Your task to perform on an android device: turn on the 24-hour format for clock Image 0: 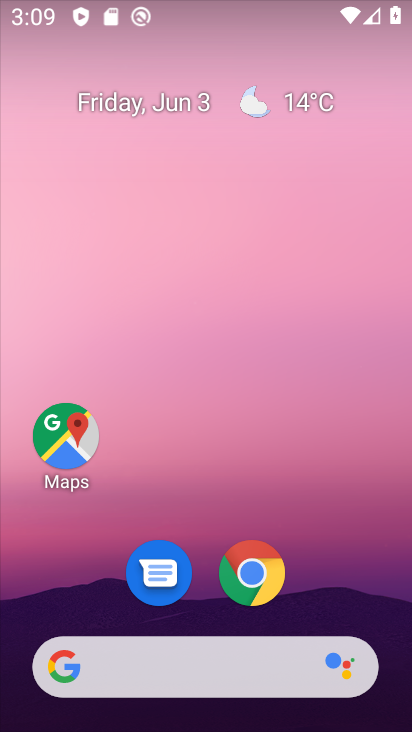
Step 0: drag from (253, 647) to (237, 3)
Your task to perform on an android device: turn on the 24-hour format for clock Image 1: 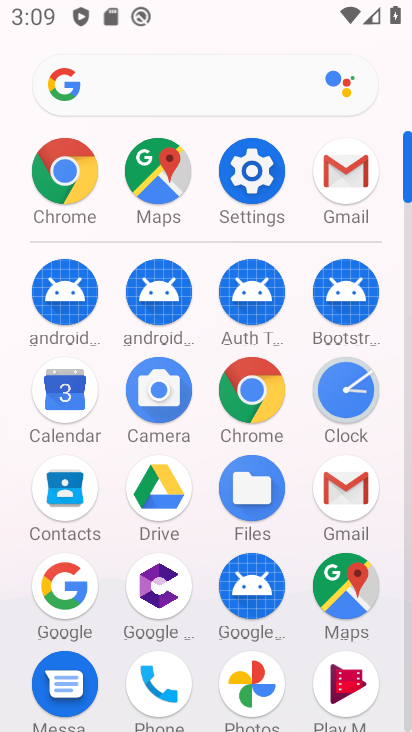
Step 1: click (343, 382)
Your task to perform on an android device: turn on the 24-hour format for clock Image 2: 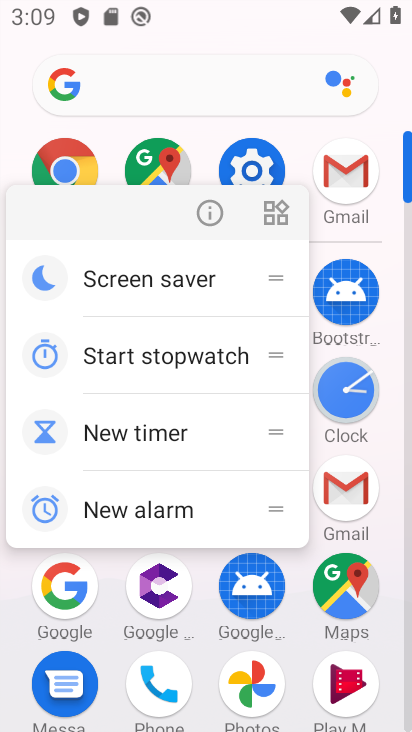
Step 2: click (344, 382)
Your task to perform on an android device: turn on the 24-hour format for clock Image 3: 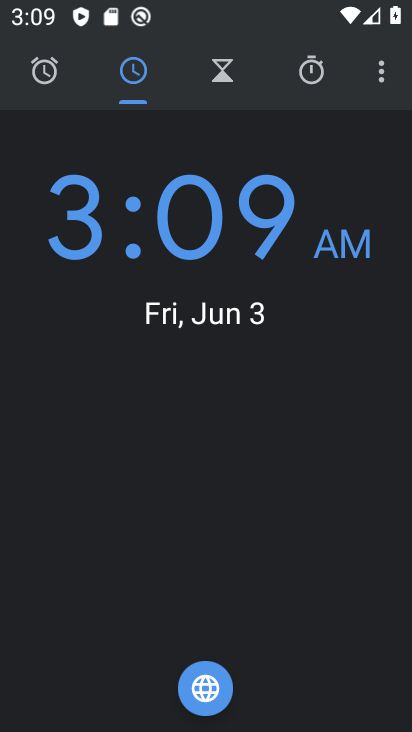
Step 3: drag from (380, 71) to (245, 145)
Your task to perform on an android device: turn on the 24-hour format for clock Image 4: 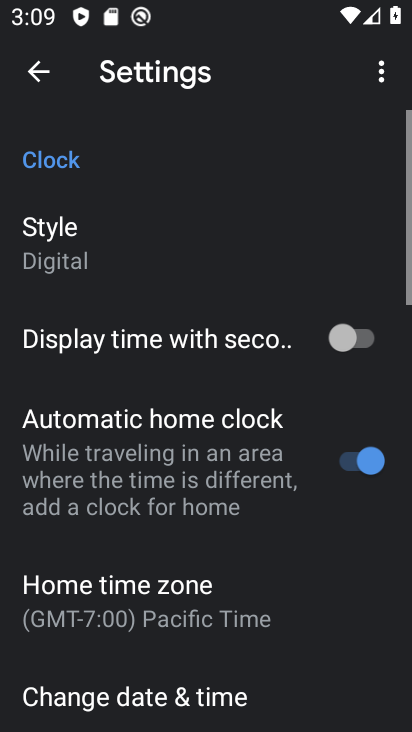
Step 4: drag from (304, 631) to (323, 49)
Your task to perform on an android device: turn on the 24-hour format for clock Image 5: 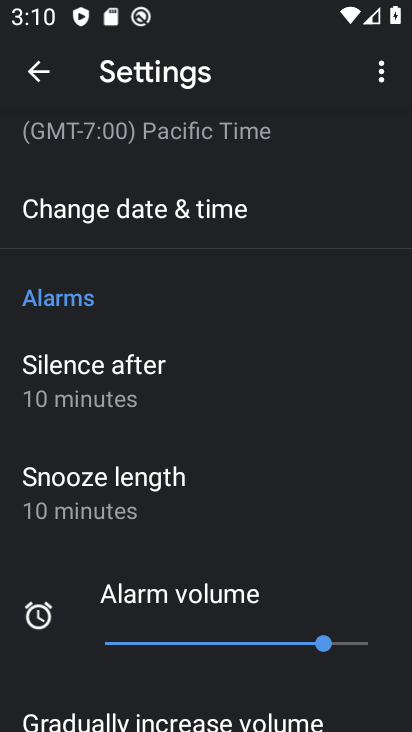
Step 5: drag from (190, 604) to (218, 42)
Your task to perform on an android device: turn on the 24-hour format for clock Image 6: 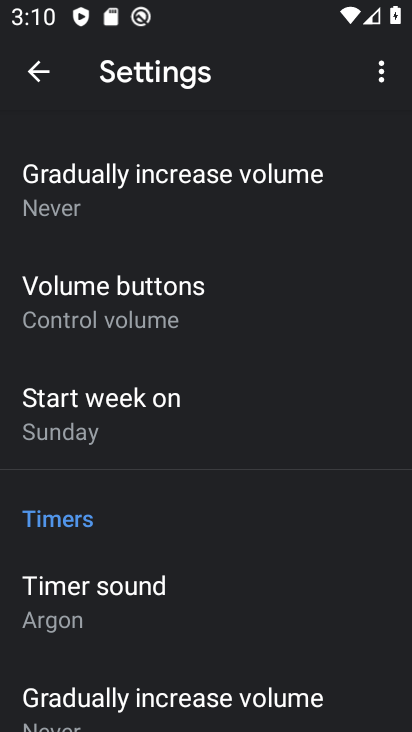
Step 6: drag from (187, 695) to (194, 356)
Your task to perform on an android device: turn on the 24-hour format for clock Image 7: 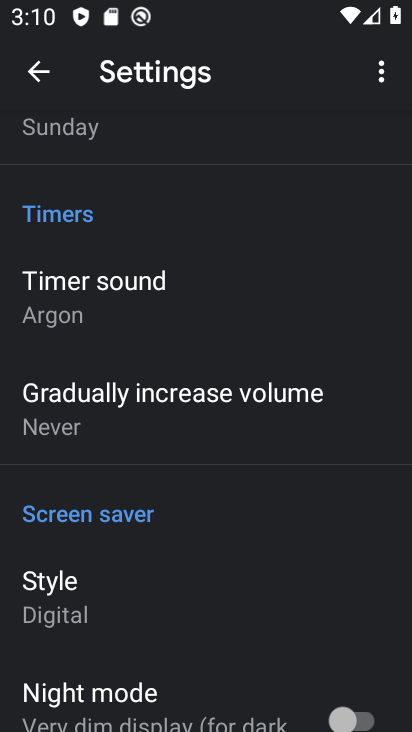
Step 7: click (203, 302)
Your task to perform on an android device: turn on the 24-hour format for clock Image 8: 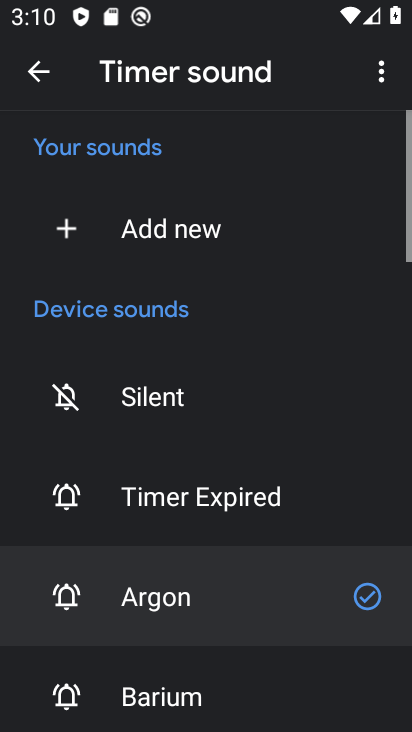
Step 8: press back button
Your task to perform on an android device: turn on the 24-hour format for clock Image 9: 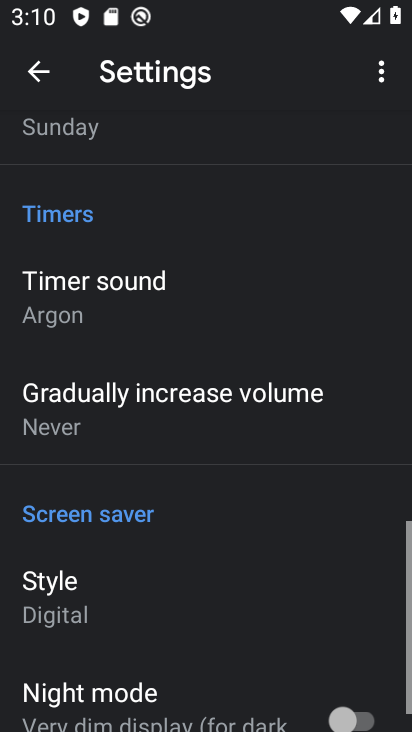
Step 9: drag from (236, 646) to (230, 116)
Your task to perform on an android device: turn on the 24-hour format for clock Image 10: 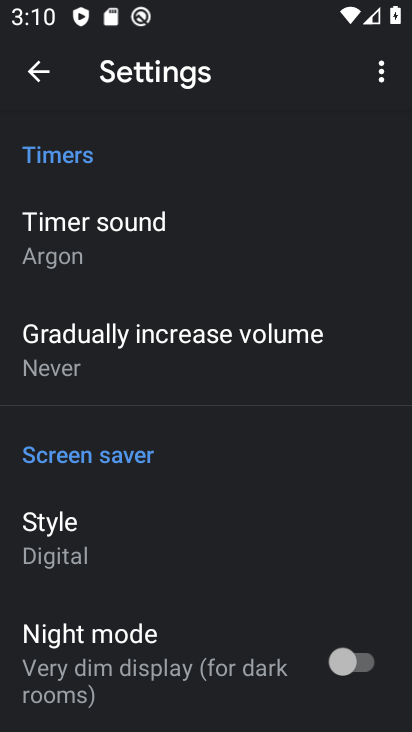
Step 10: drag from (191, 178) to (165, 680)
Your task to perform on an android device: turn on the 24-hour format for clock Image 11: 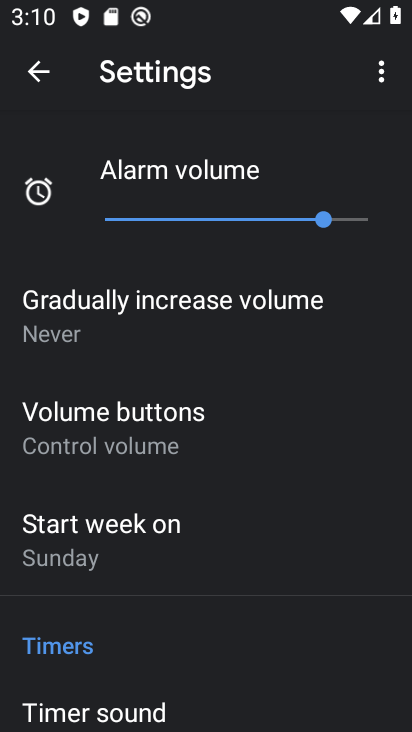
Step 11: drag from (215, 482) to (285, 712)
Your task to perform on an android device: turn on the 24-hour format for clock Image 12: 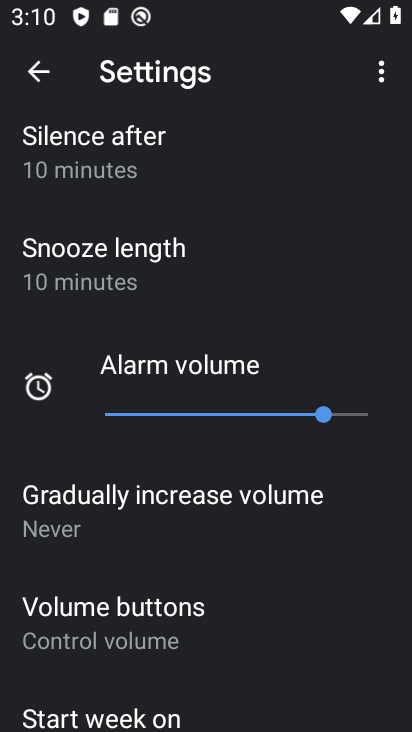
Step 12: drag from (235, 224) to (267, 691)
Your task to perform on an android device: turn on the 24-hour format for clock Image 13: 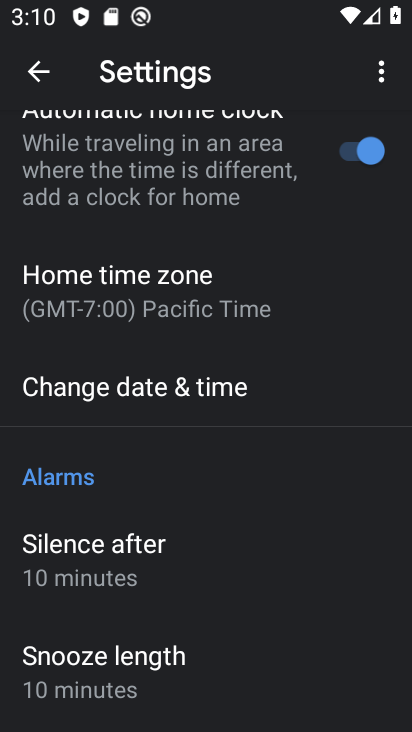
Step 13: click (223, 419)
Your task to perform on an android device: turn on the 24-hour format for clock Image 14: 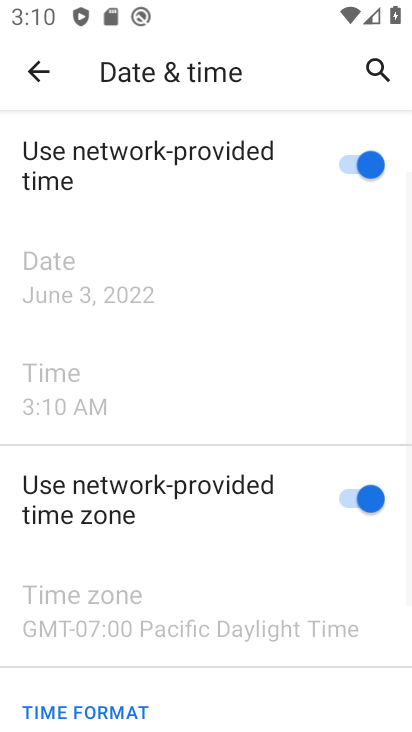
Step 14: drag from (197, 622) to (206, 44)
Your task to perform on an android device: turn on the 24-hour format for clock Image 15: 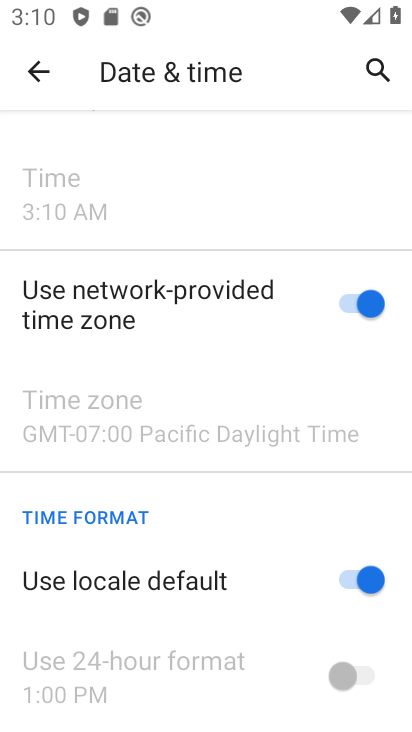
Step 15: click (348, 575)
Your task to perform on an android device: turn on the 24-hour format for clock Image 16: 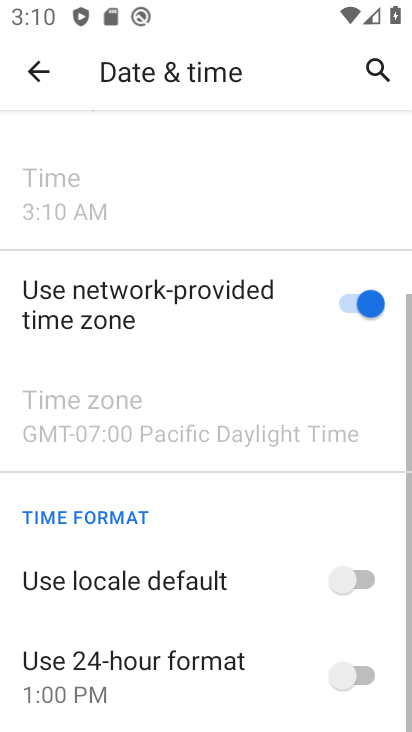
Step 16: click (366, 676)
Your task to perform on an android device: turn on the 24-hour format for clock Image 17: 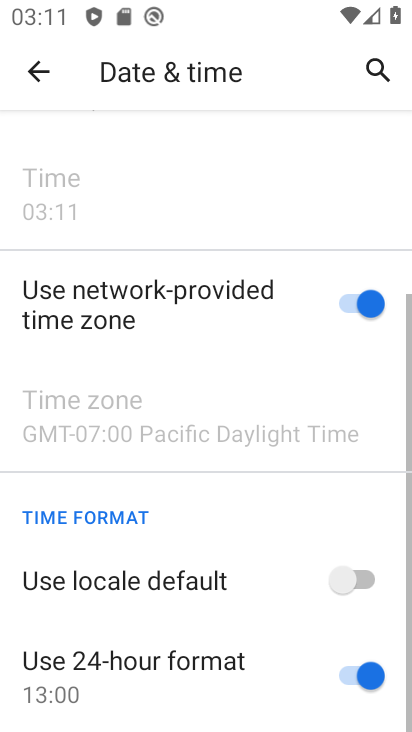
Step 17: task complete